Your task to perform on an android device: check battery use Image 0: 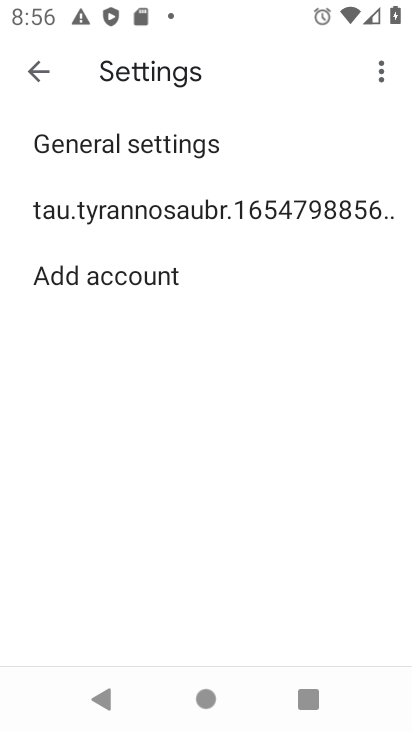
Step 0: press home button
Your task to perform on an android device: check battery use Image 1: 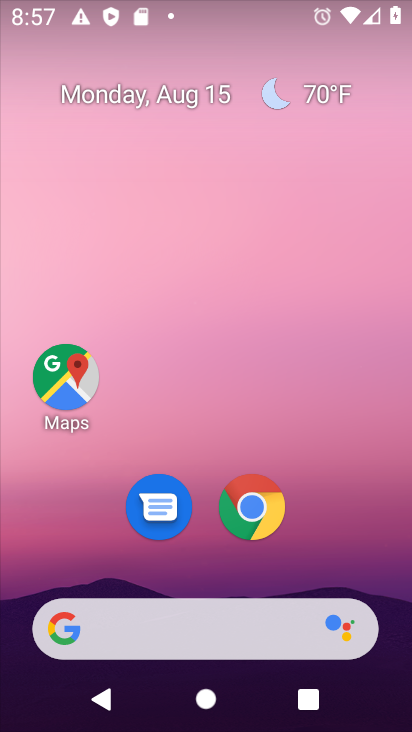
Step 1: drag from (199, 568) to (386, 337)
Your task to perform on an android device: check battery use Image 2: 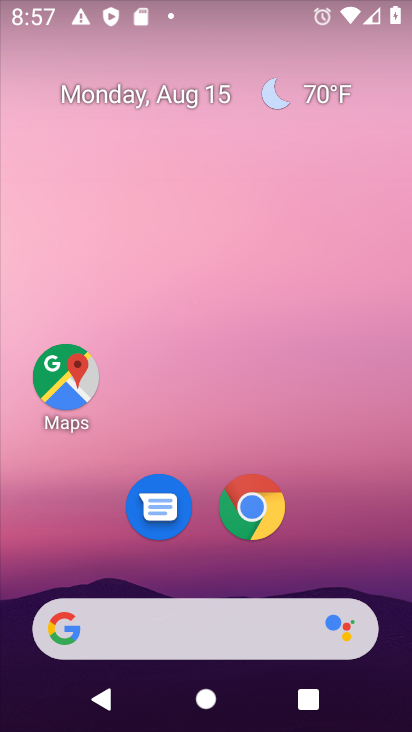
Step 2: drag from (261, 476) to (294, 116)
Your task to perform on an android device: check battery use Image 3: 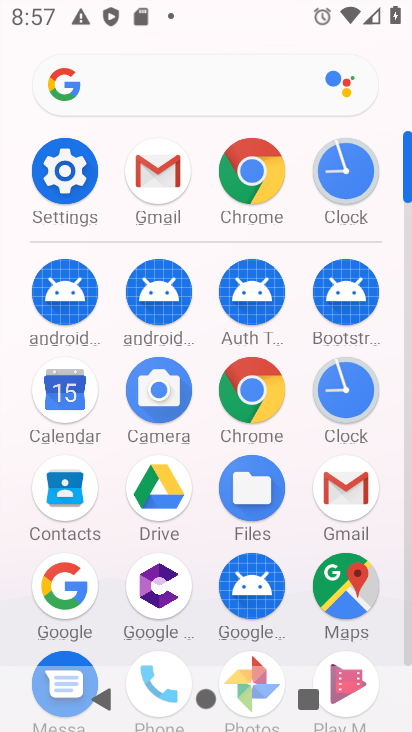
Step 3: click (83, 158)
Your task to perform on an android device: check battery use Image 4: 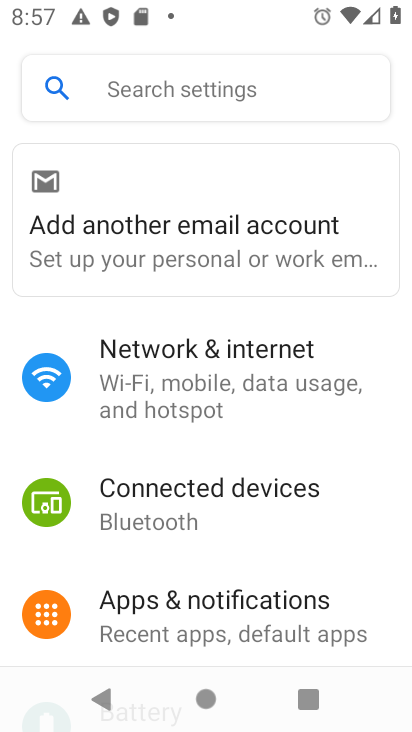
Step 4: drag from (270, 614) to (288, 156)
Your task to perform on an android device: check battery use Image 5: 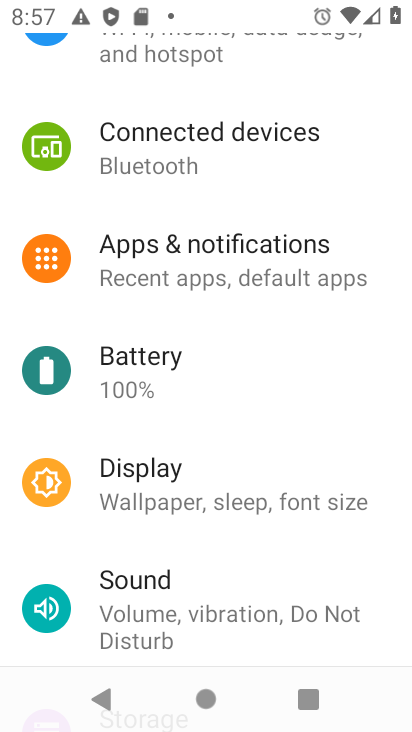
Step 5: click (151, 372)
Your task to perform on an android device: check battery use Image 6: 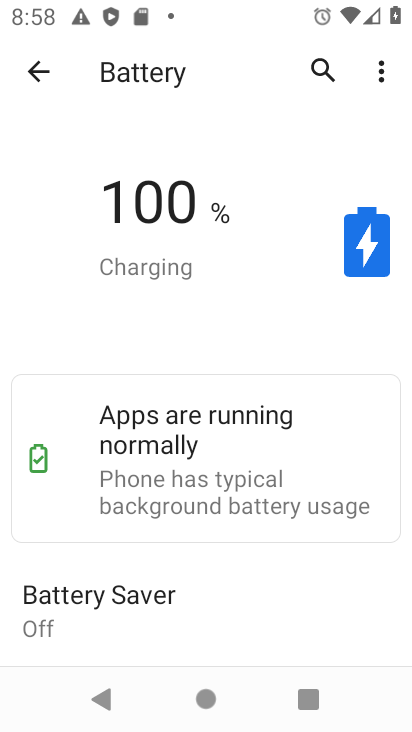
Step 6: task complete